Your task to perform on an android device: Go to Maps Image 0: 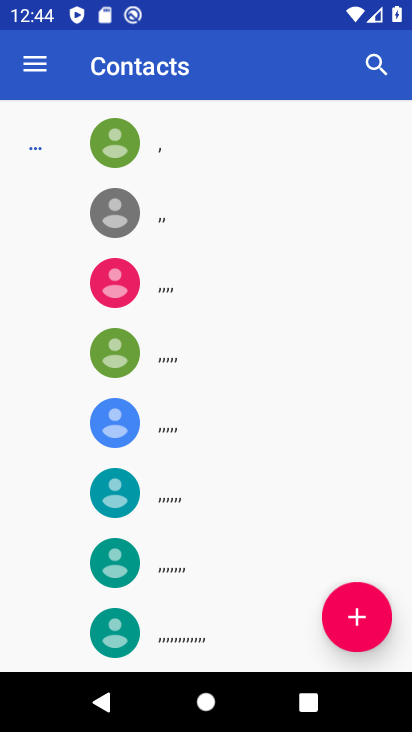
Step 0: press home button
Your task to perform on an android device: Go to Maps Image 1: 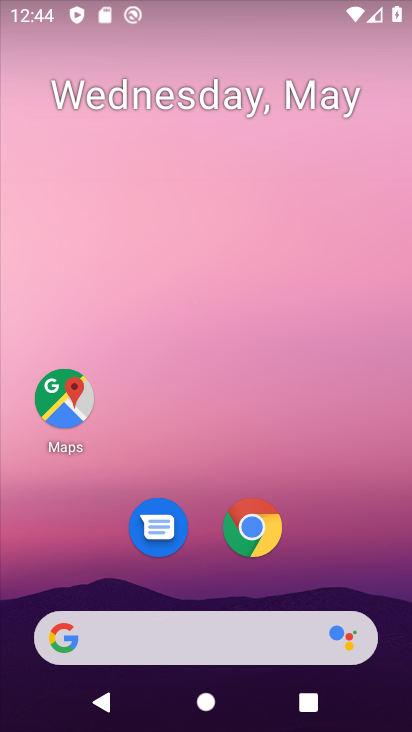
Step 1: click (60, 410)
Your task to perform on an android device: Go to Maps Image 2: 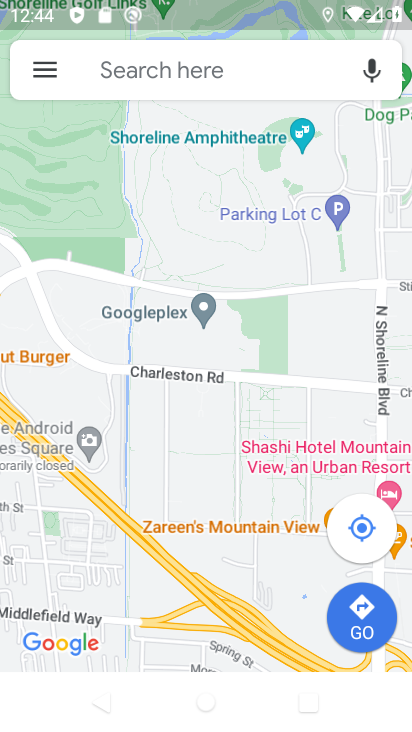
Step 2: task complete